Your task to perform on an android device: Go to location settings Image 0: 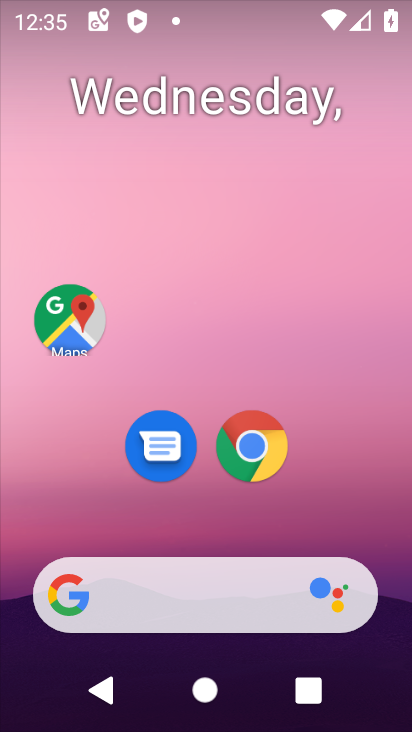
Step 0: drag from (347, 663) to (306, 34)
Your task to perform on an android device: Go to location settings Image 1: 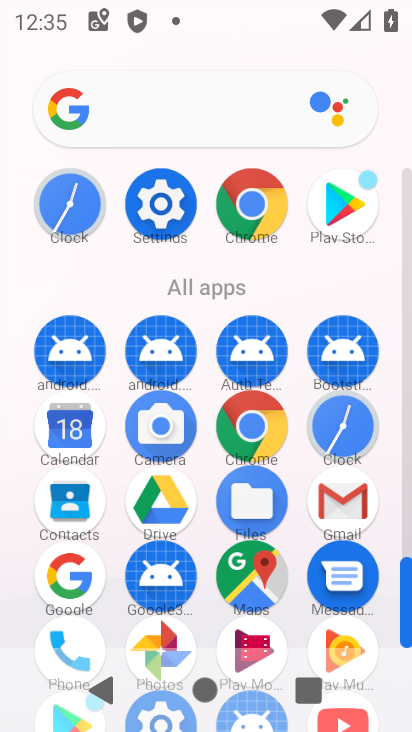
Step 1: click (171, 196)
Your task to perform on an android device: Go to location settings Image 2: 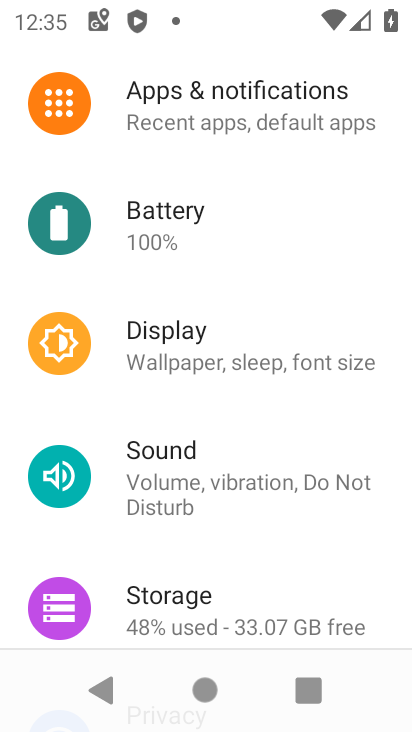
Step 2: drag from (258, 521) to (205, 117)
Your task to perform on an android device: Go to location settings Image 3: 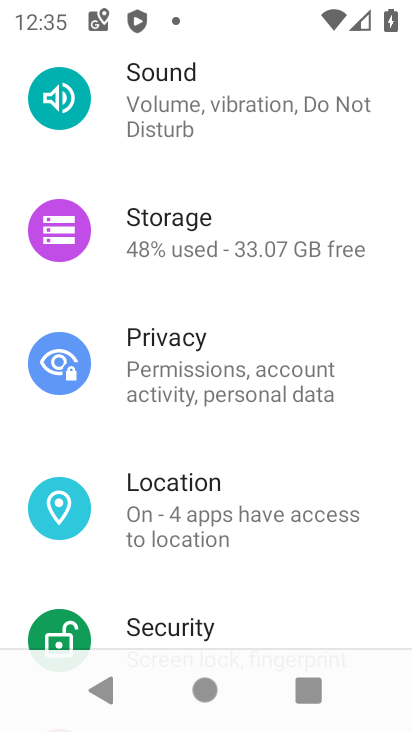
Step 3: click (183, 494)
Your task to perform on an android device: Go to location settings Image 4: 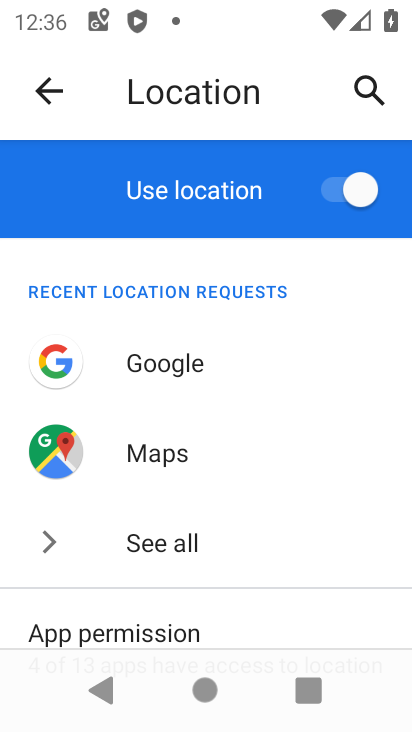
Step 4: task complete